Your task to perform on an android device: open app "Upside-Cash back on gas & food" (install if not already installed) and go to login screen Image 0: 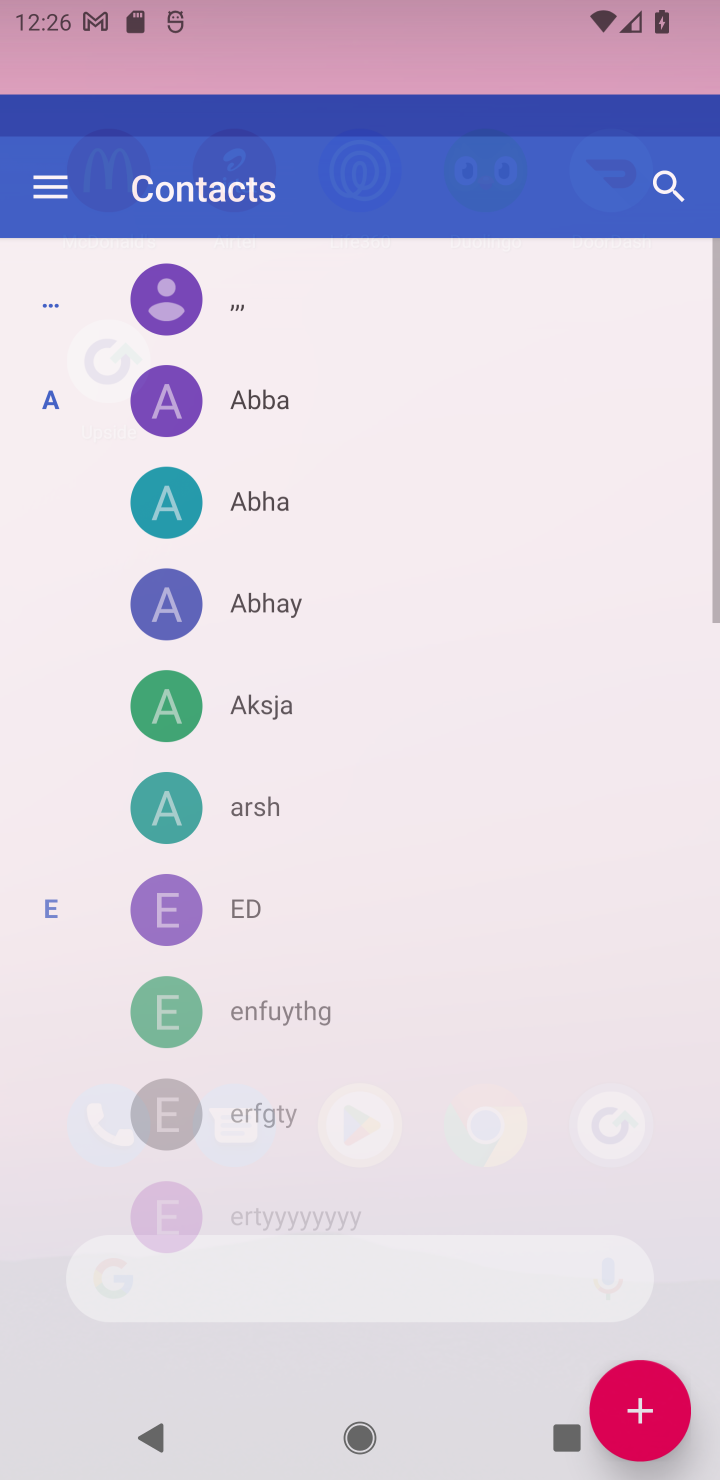
Step 0: press home button
Your task to perform on an android device: open app "Upside-Cash back on gas & food" (install if not already installed) and go to login screen Image 1: 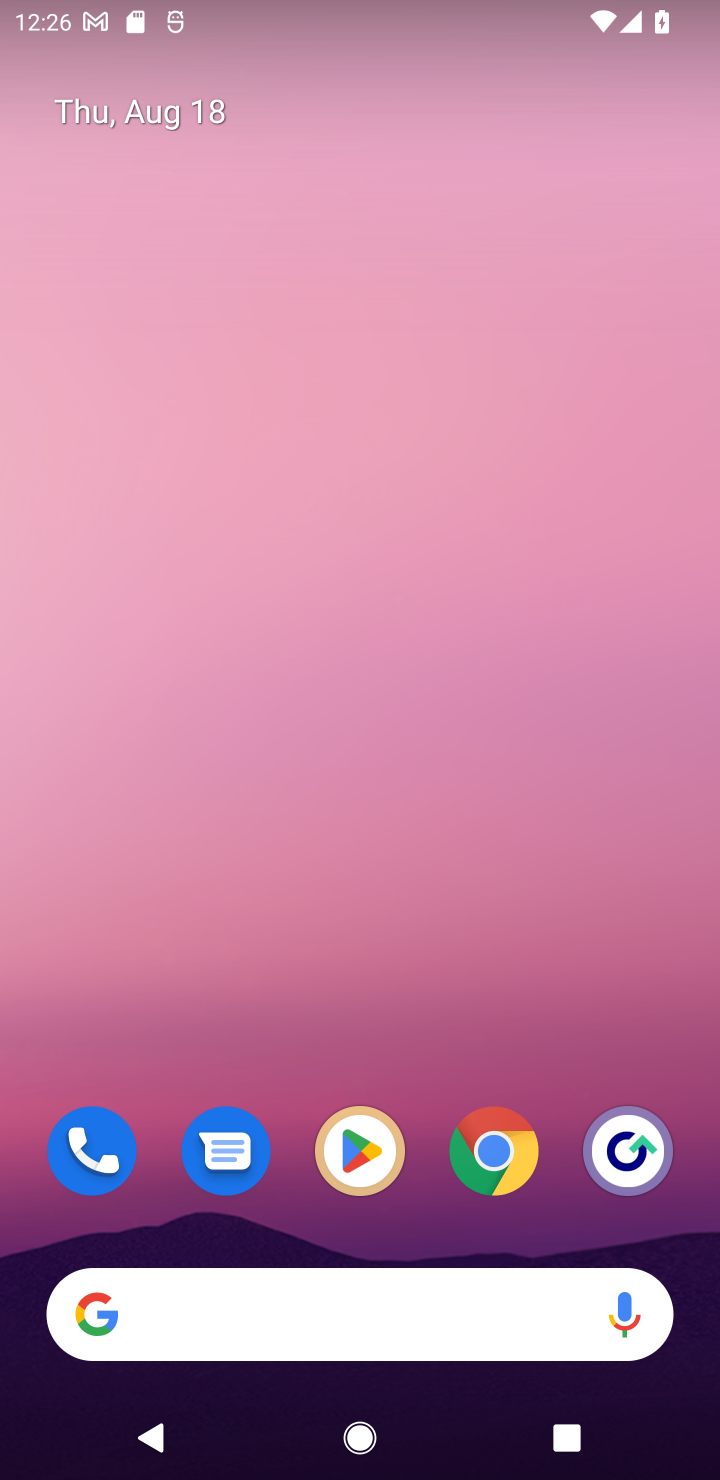
Step 1: click (359, 1159)
Your task to perform on an android device: open app "Upside-Cash back on gas & food" (install if not already installed) and go to login screen Image 2: 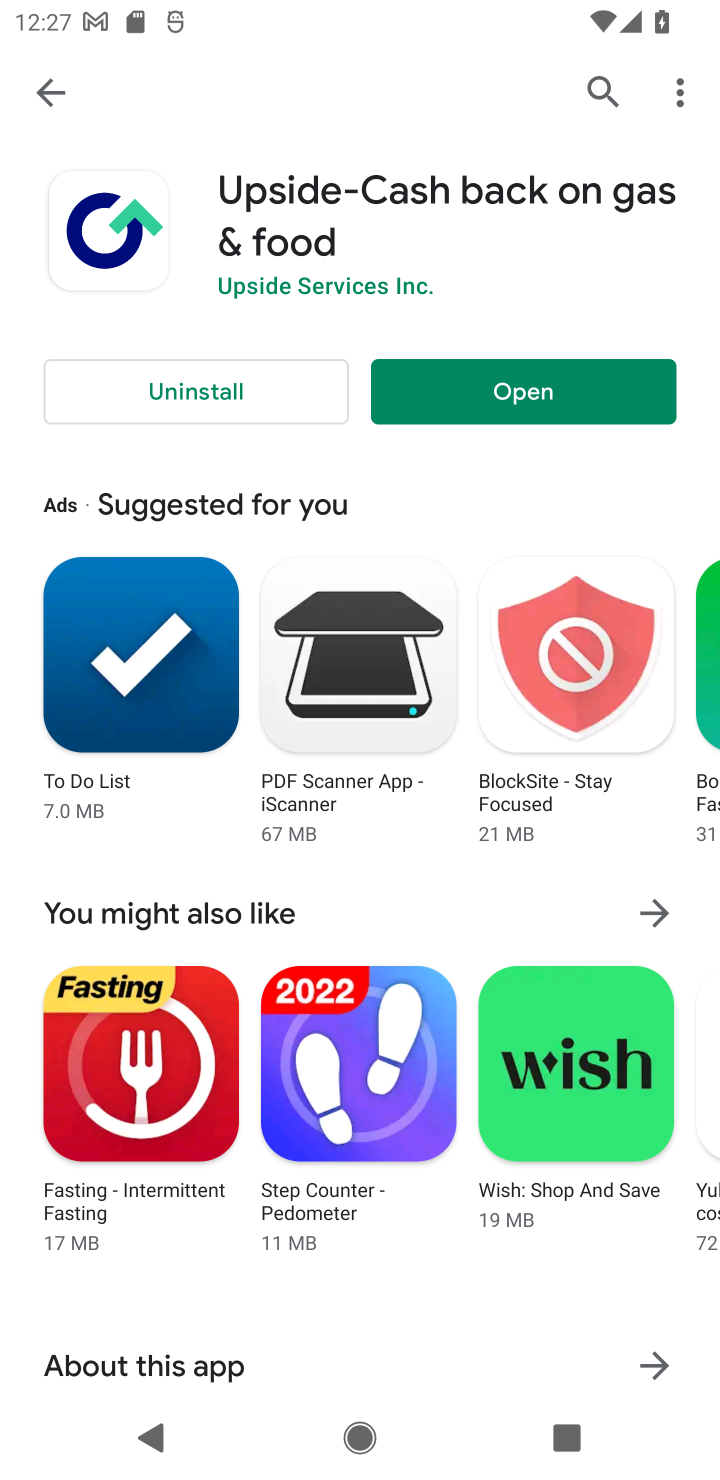
Step 2: click (33, 97)
Your task to perform on an android device: open app "Upside-Cash back on gas & food" (install if not already installed) and go to login screen Image 3: 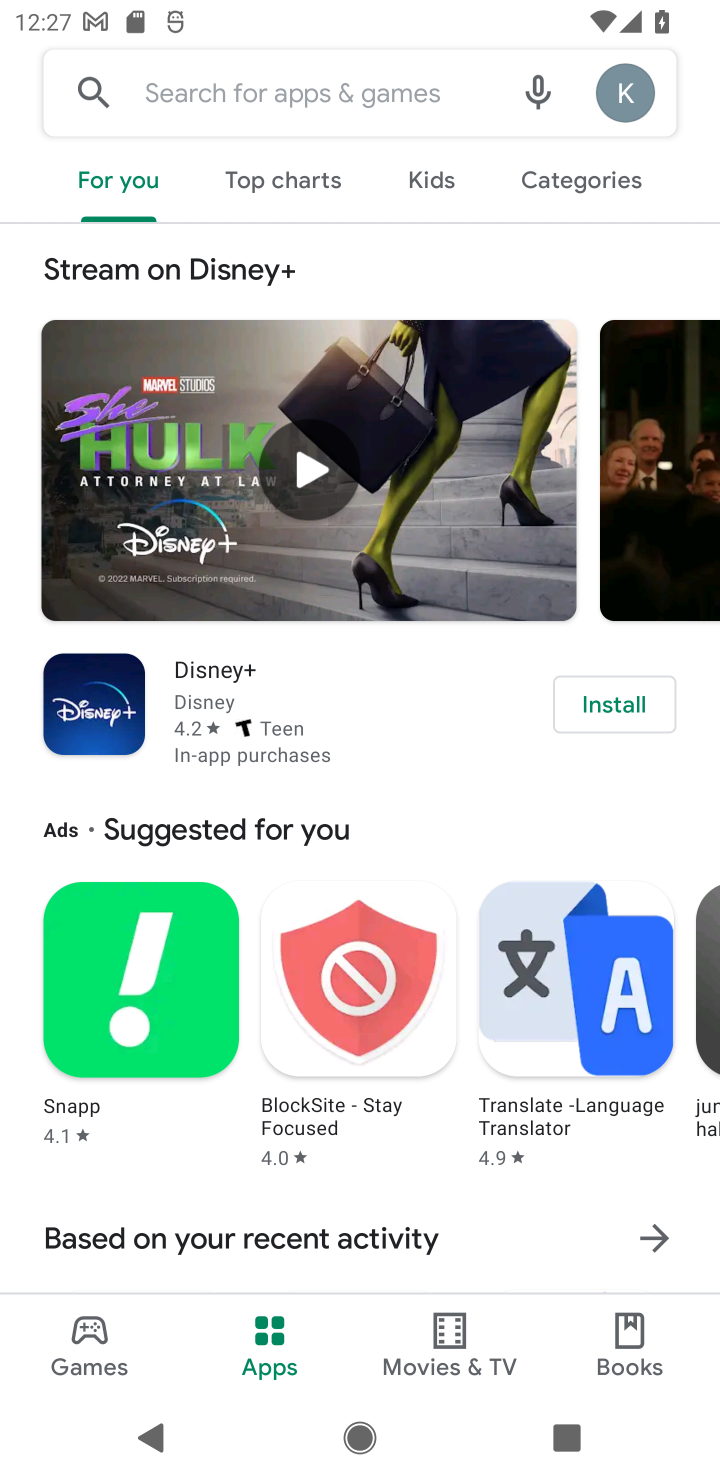
Step 3: click (234, 97)
Your task to perform on an android device: open app "Upside-Cash back on gas & food" (install if not already installed) and go to login screen Image 4: 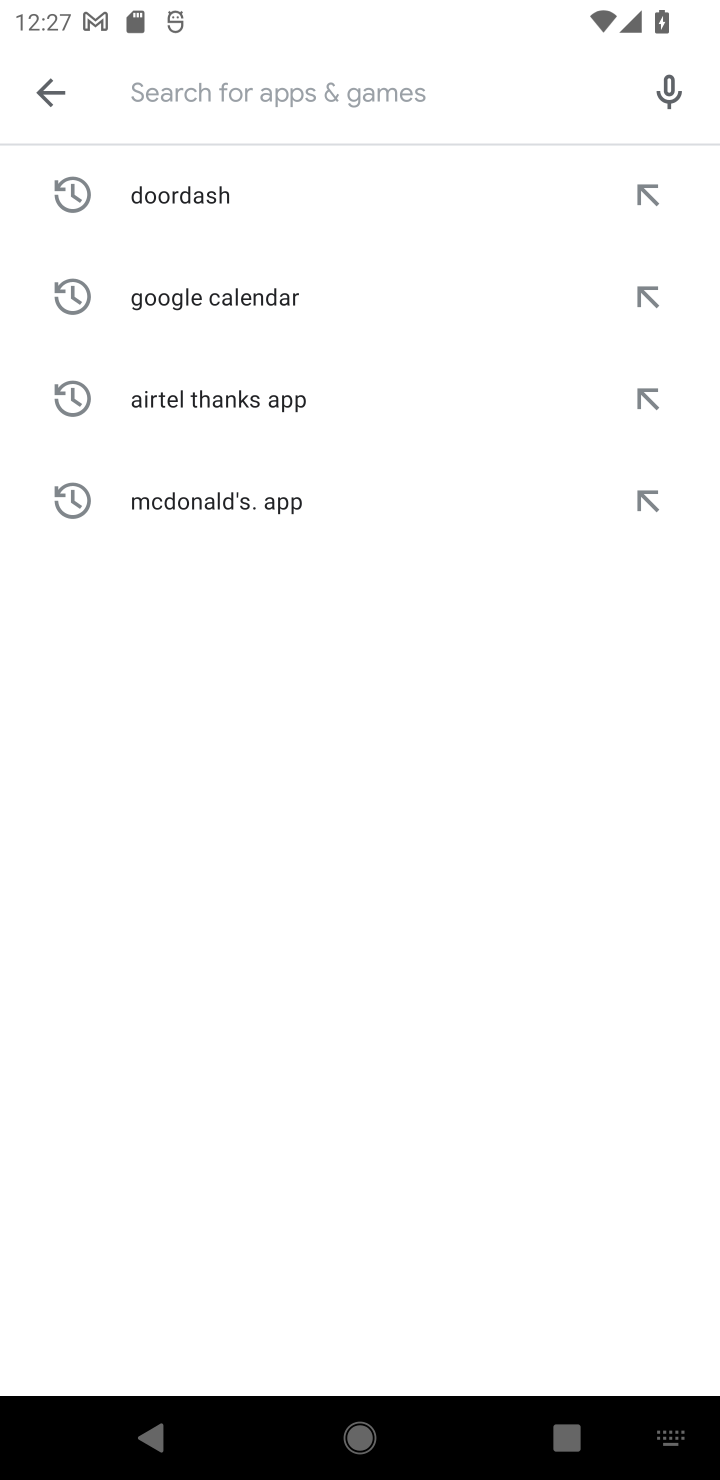
Step 4: type "Upside-Cash back on gas & food"
Your task to perform on an android device: open app "Upside-Cash back on gas & food" (install if not already installed) and go to login screen Image 5: 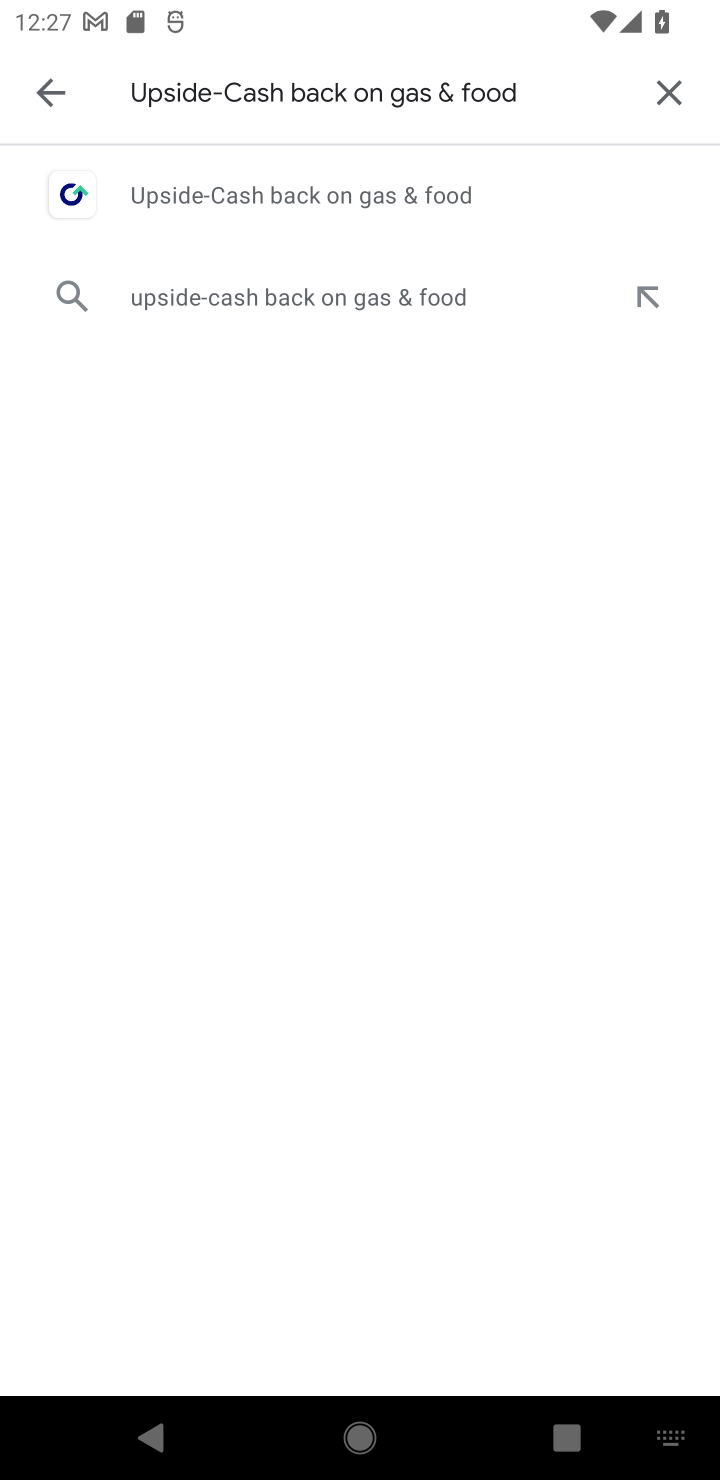
Step 5: click (345, 195)
Your task to perform on an android device: open app "Upside-Cash back on gas & food" (install if not already installed) and go to login screen Image 6: 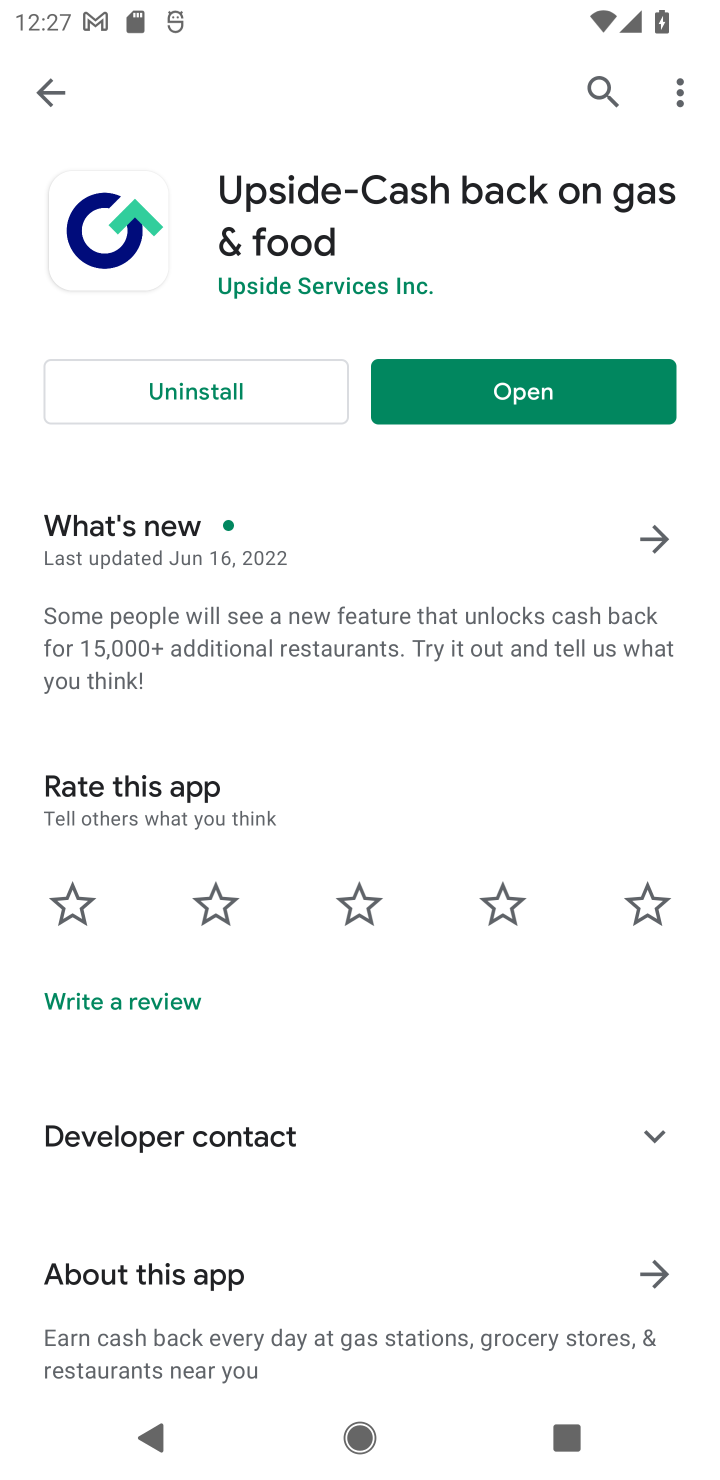
Step 6: click (438, 401)
Your task to perform on an android device: open app "Upside-Cash back on gas & food" (install if not already installed) and go to login screen Image 7: 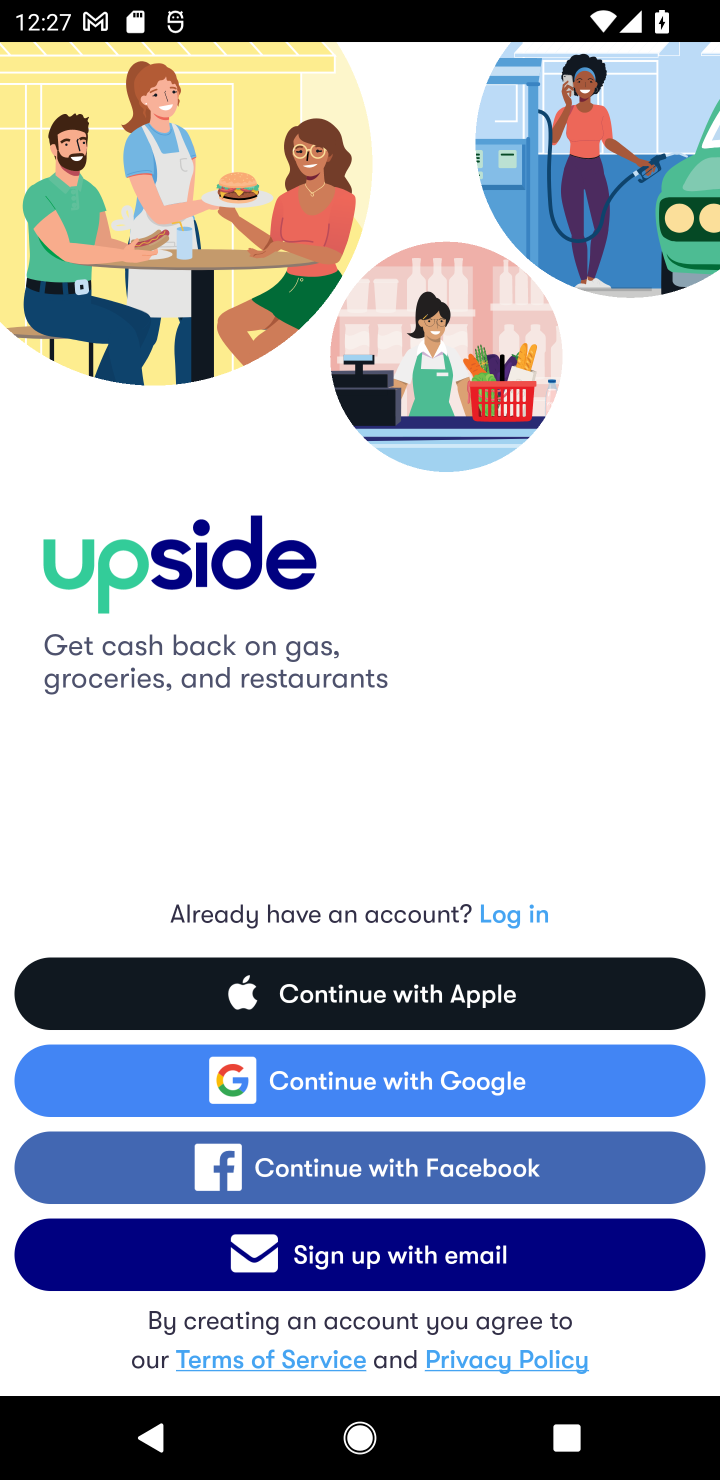
Step 7: click (513, 922)
Your task to perform on an android device: open app "Upside-Cash back on gas & food" (install if not already installed) and go to login screen Image 8: 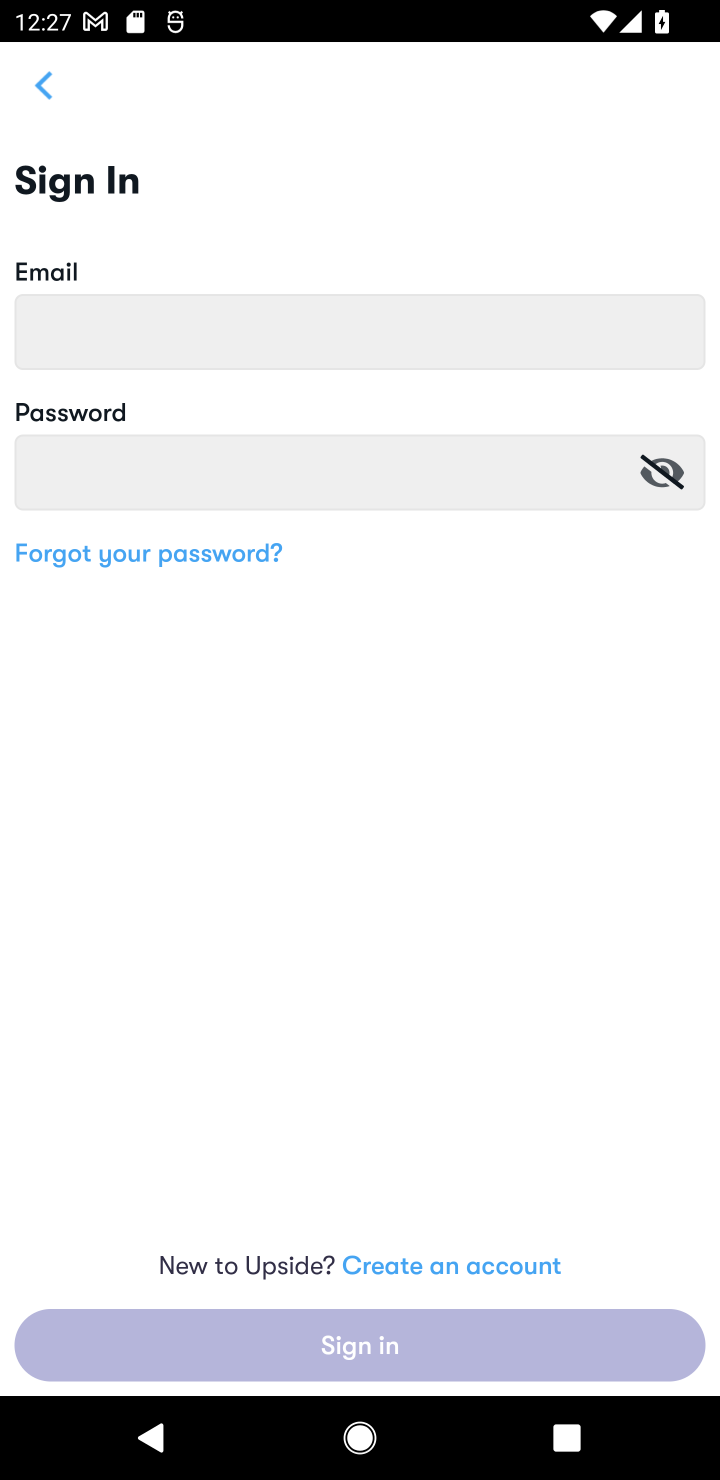
Step 8: click (91, 561)
Your task to perform on an android device: open app "Upside-Cash back on gas & food" (install if not already installed) and go to login screen Image 9: 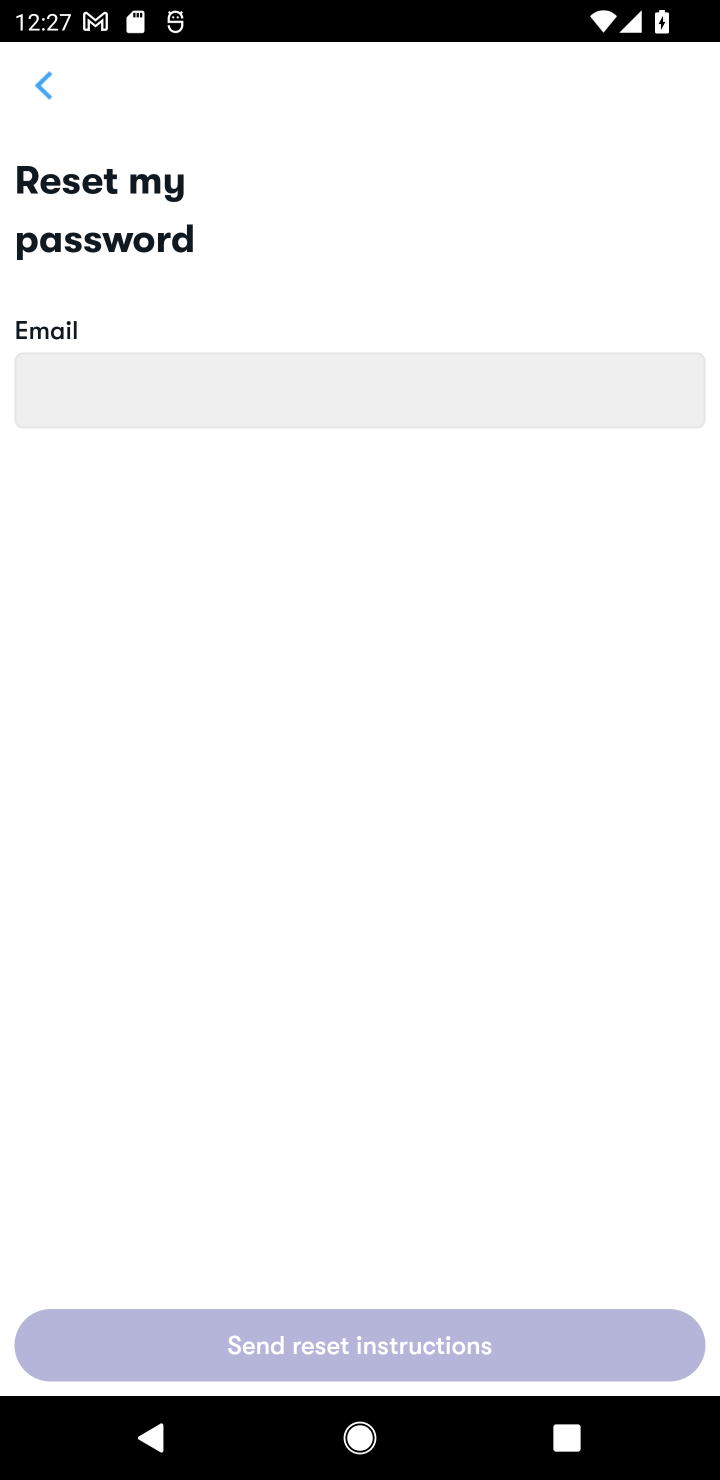
Step 9: task complete